Your task to perform on an android device: Is it going to rain today? Image 0: 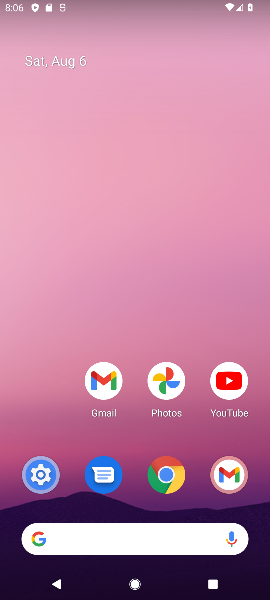
Step 0: drag from (132, 436) to (135, 99)
Your task to perform on an android device: Is it going to rain today? Image 1: 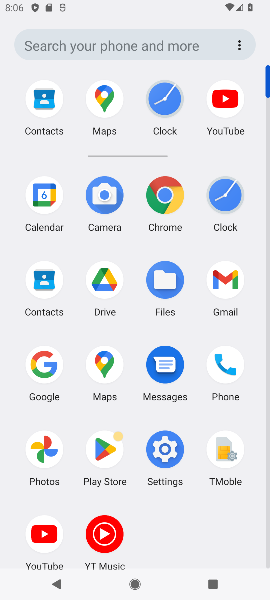
Step 1: click (44, 373)
Your task to perform on an android device: Is it going to rain today? Image 2: 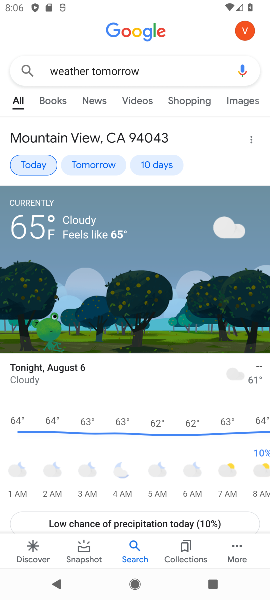
Step 2: task complete